Your task to perform on an android device: Open the map Image 0: 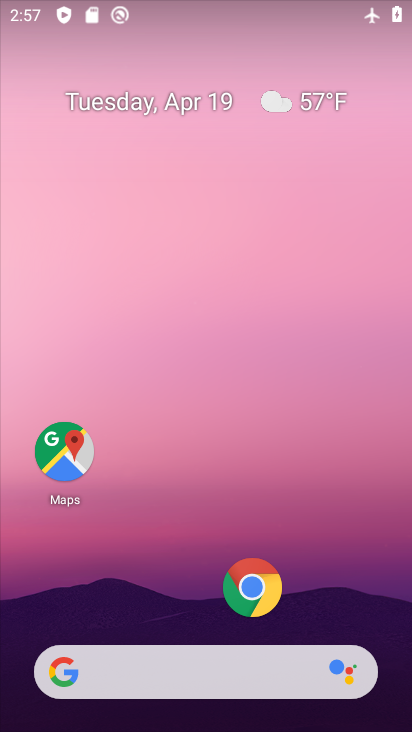
Step 0: click (67, 459)
Your task to perform on an android device: Open the map Image 1: 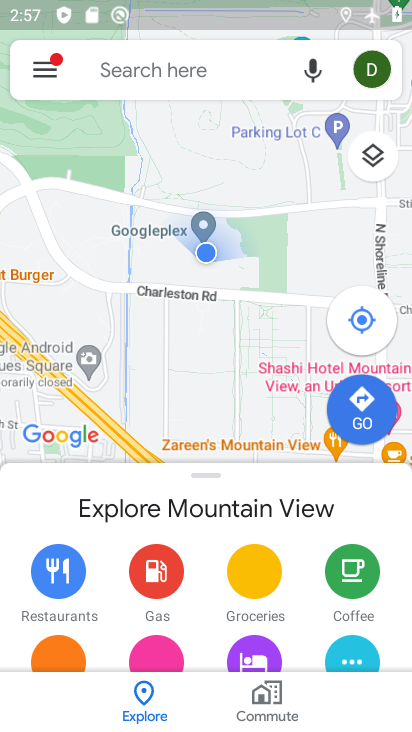
Step 1: task complete